Your task to perform on an android device: View the shopping cart on amazon.com. Add "usb-c to usb-a" to the cart on amazon.com, then select checkout. Image 0: 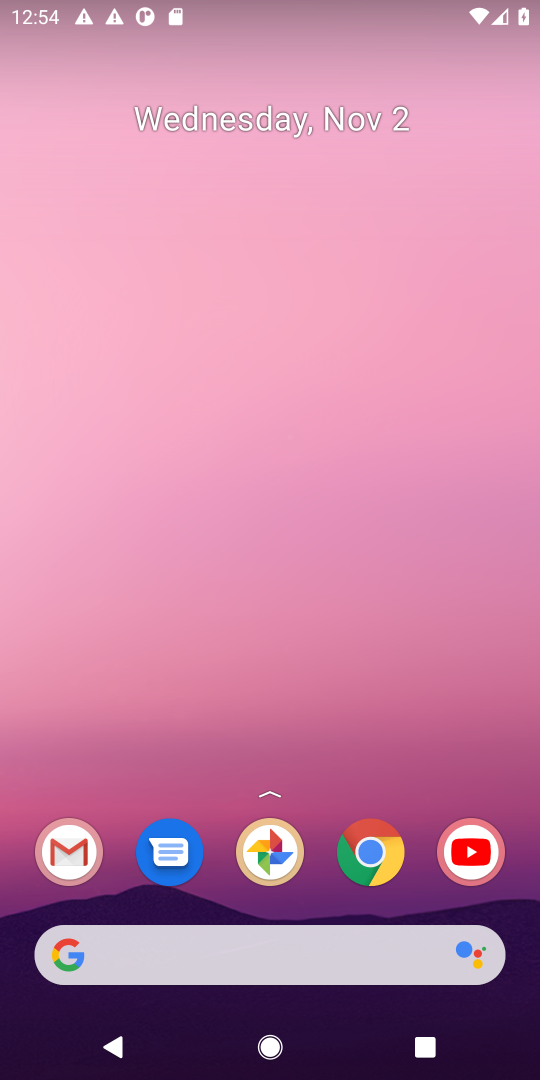
Step 0: click (73, 952)
Your task to perform on an android device: View the shopping cart on amazon.com. Add "usb-c to usb-a" to the cart on amazon.com, then select checkout. Image 1: 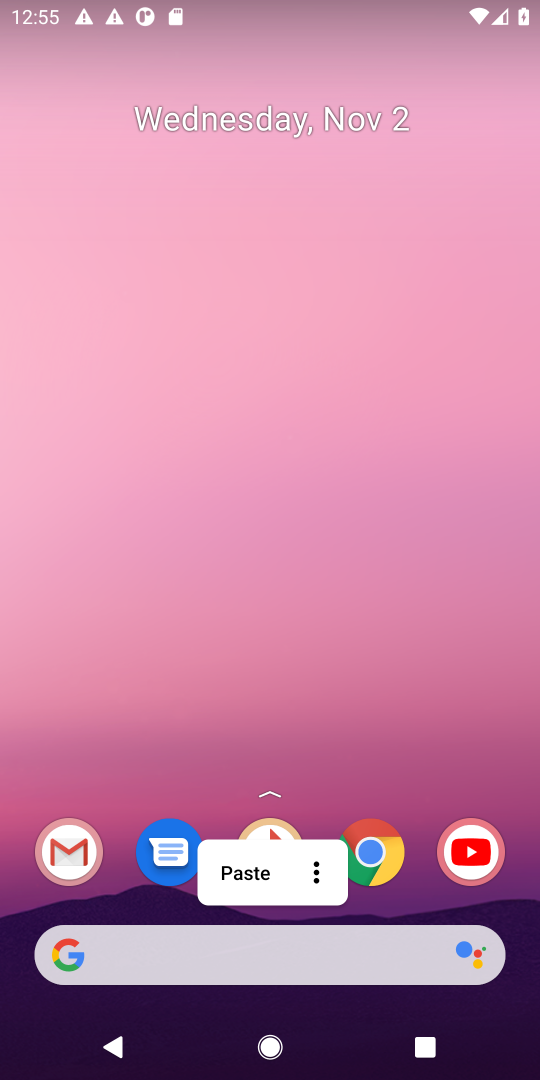
Step 1: click (78, 960)
Your task to perform on an android device: View the shopping cart on amazon.com. Add "usb-c to usb-a" to the cart on amazon.com, then select checkout. Image 2: 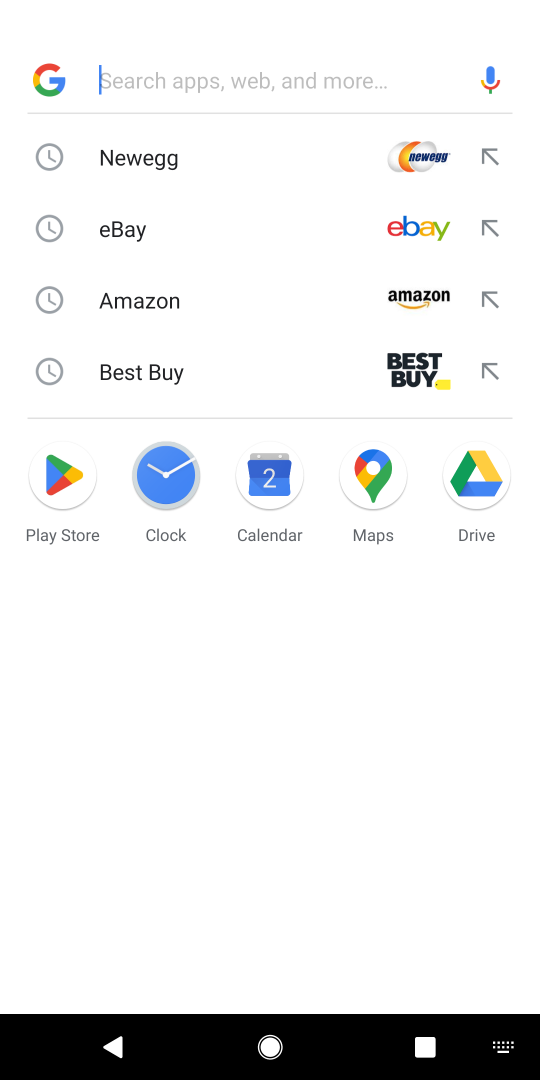
Step 2: click (413, 295)
Your task to perform on an android device: View the shopping cart on amazon.com. Add "usb-c to usb-a" to the cart on amazon.com, then select checkout. Image 3: 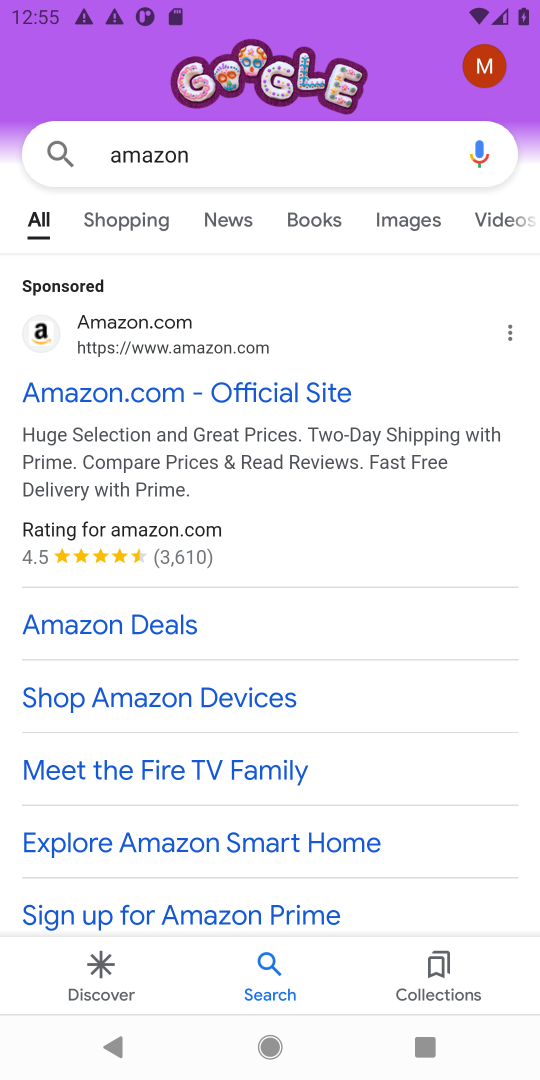
Step 3: drag from (418, 737) to (383, 300)
Your task to perform on an android device: View the shopping cart on amazon.com. Add "usb-c to usb-a" to the cart on amazon.com, then select checkout. Image 4: 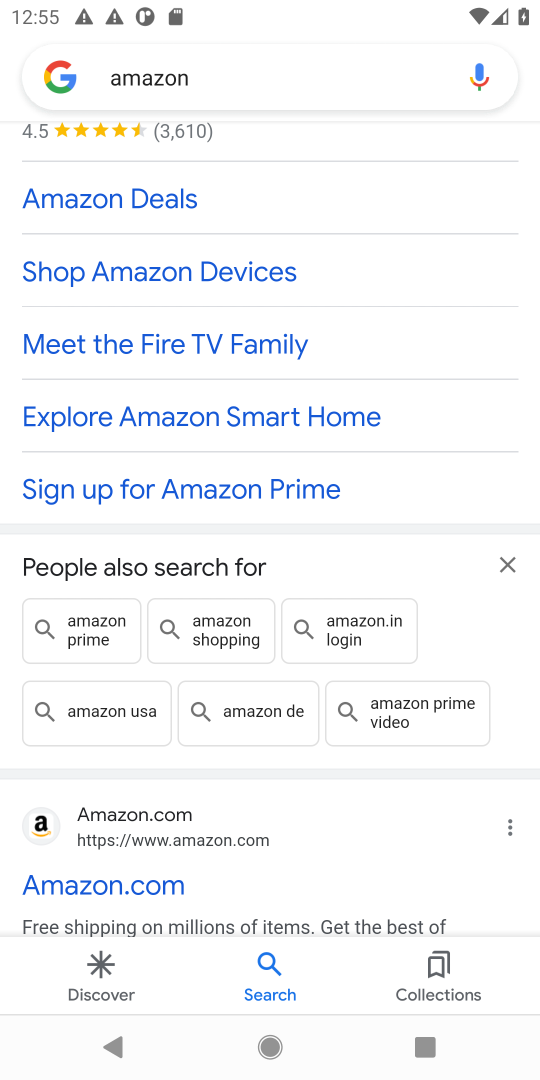
Step 4: click (108, 886)
Your task to perform on an android device: View the shopping cart on amazon.com. Add "usb-c to usb-a" to the cart on amazon.com, then select checkout. Image 5: 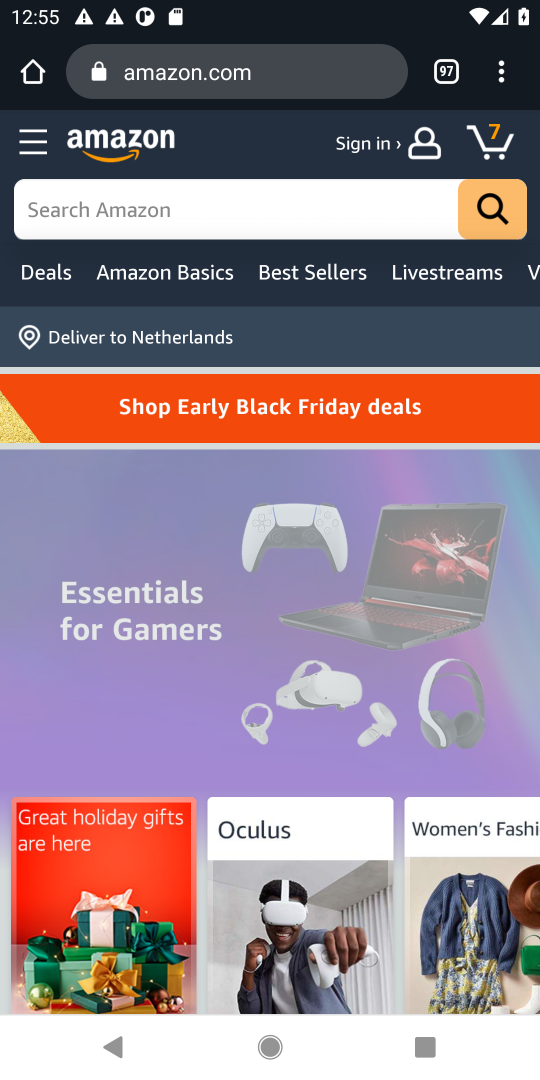
Step 5: click (85, 215)
Your task to perform on an android device: View the shopping cart on amazon.com. Add "usb-c to usb-a" to the cart on amazon.com, then select checkout. Image 6: 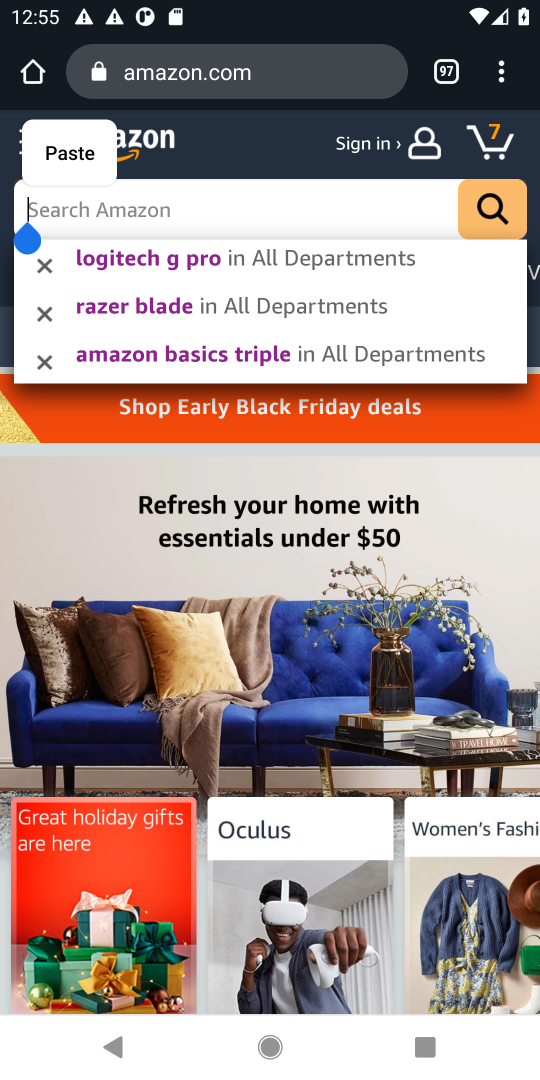
Step 6: type "usb-c to usb-a"
Your task to perform on an android device: View the shopping cart on amazon.com. Add "usb-c to usb-a" to the cart on amazon.com, then select checkout. Image 7: 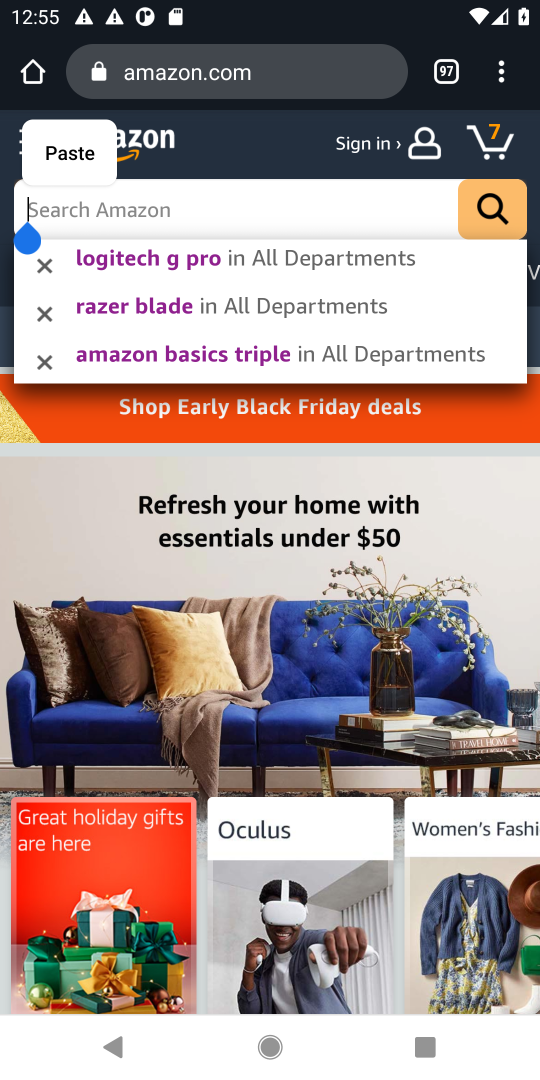
Step 7: click (119, 201)
Your task to perform on an android device: View the shopping cart on amazon.com. Add "usb-c to usb-a" to the cart on amazon.com, then select checkout. Image 8: 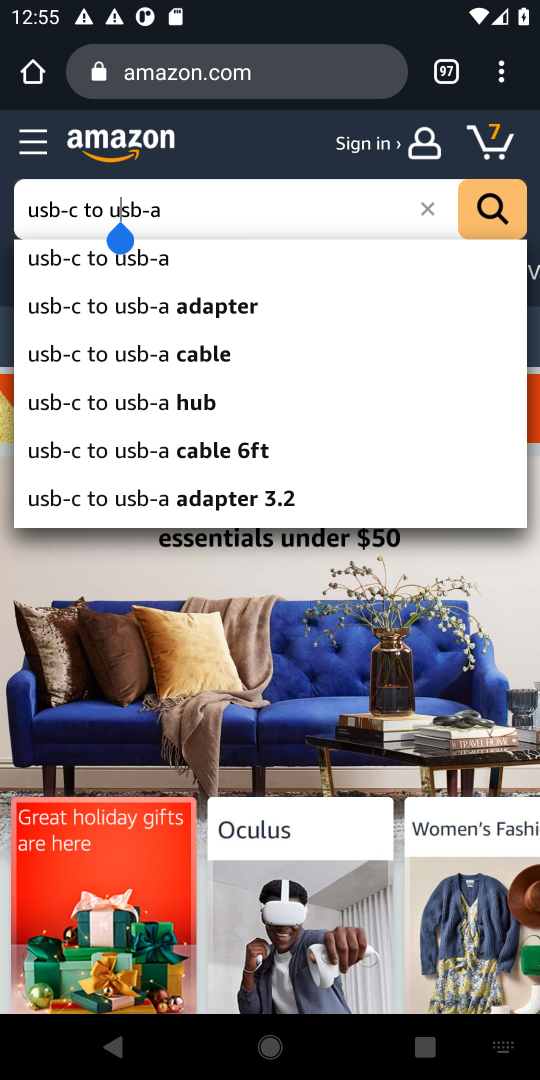
Step 8: press enter
Your task to perform on an android device: View the shopping cart on amazon.com. Add "usb-c to usb-a" to the cart on amazon.com, then select checkout. Image 9: 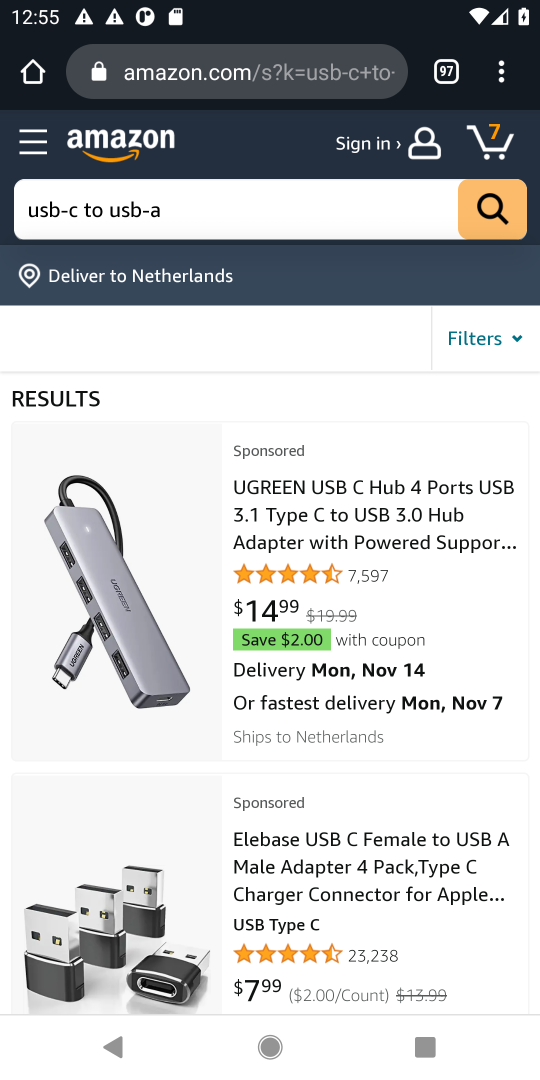
Step 9: click (441, 863)
Your task to perform on an android device: View the shopping cart on amazon.com. Add "usb-c to usb-a" to the cart on amazon.com, then select checkout. Image 10: 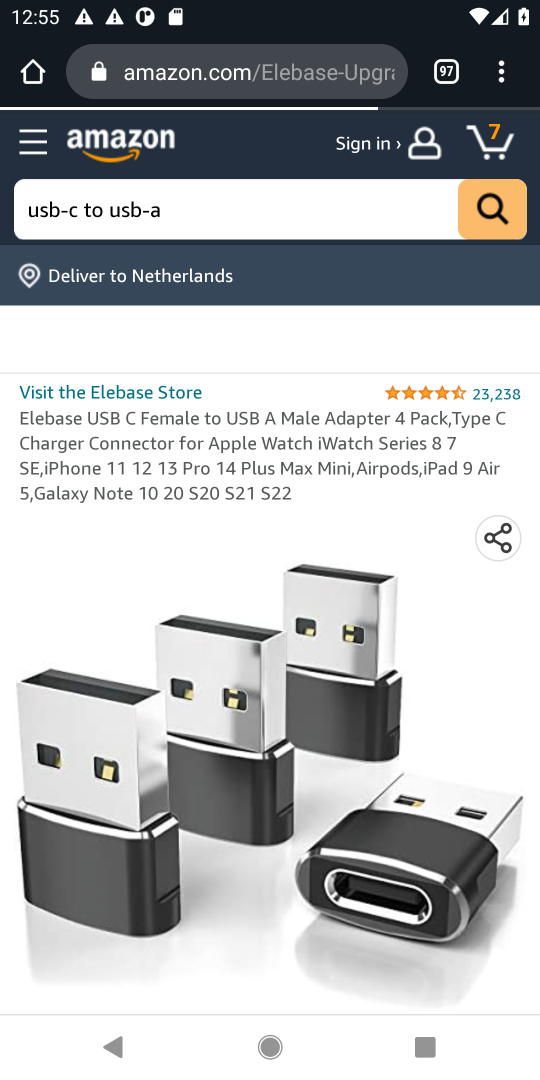
Step 10: drag from (264, 909) to (307, 223)
Your task to perform on an android device: View the shopping cart on amazon.com. Add "usb-c to usb-a" to the cart on amazon.com, then select checkout. Image 11: 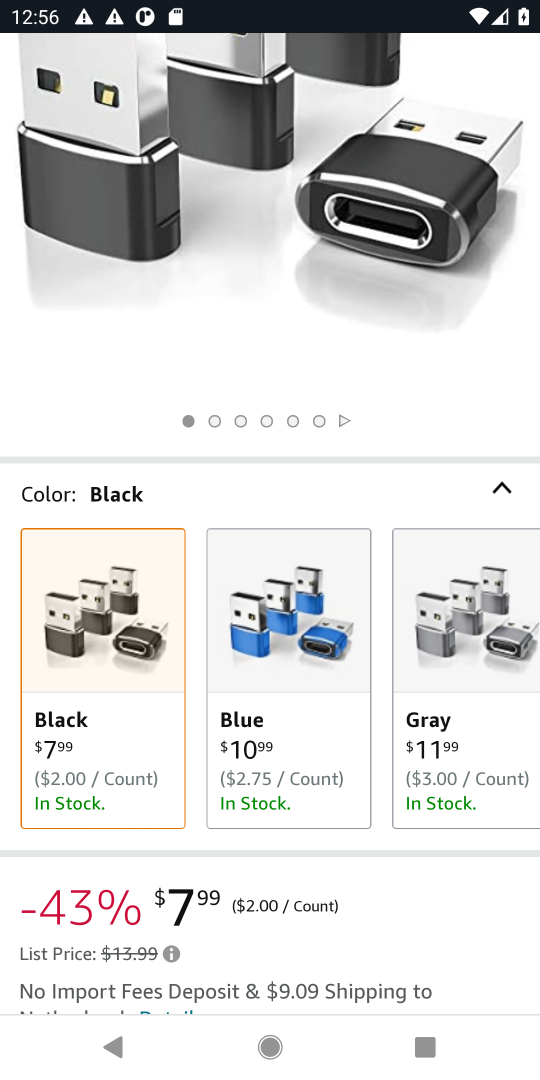
Step 11: drag from (279, 963) to (310, 311)
Your task to perform on an android device: View the shopping cart on amazon.com. Add "usb-c to usb-a" to the cart on amazon.com, then select checkout. Image 12: 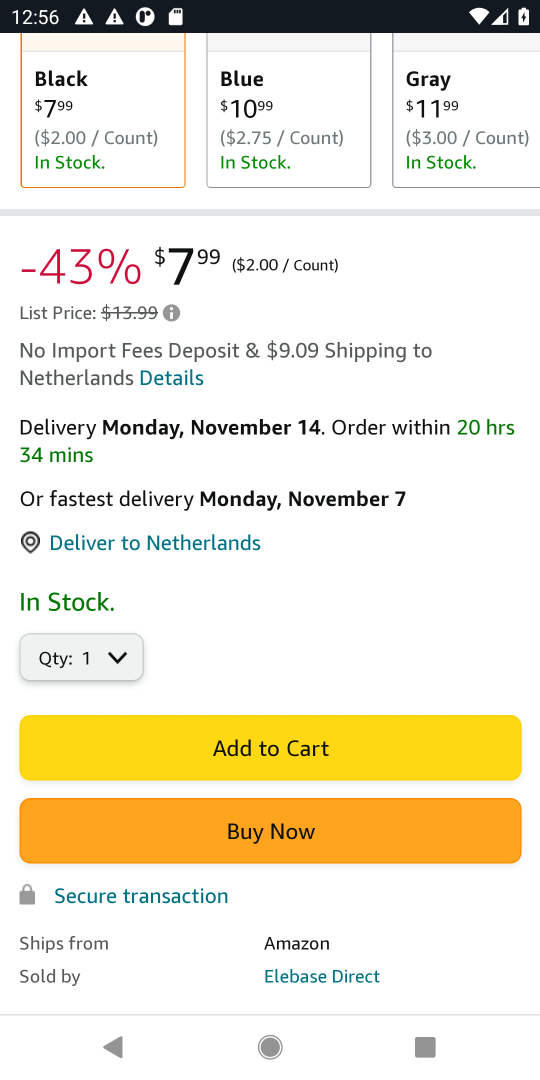
Step 12: click (247, 756)
Your task to perform on an android device: View the shopping cart on amazon.com. Add "usb-c to usb-a" to the cart on amazon.com, then select checkout. Image 13: 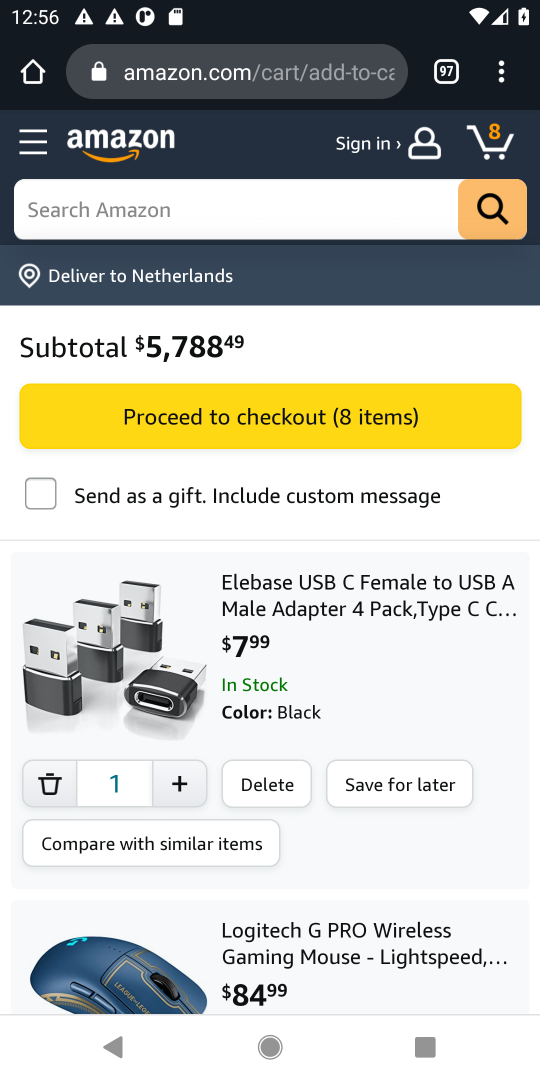
Step 13: click (489, 133)
Your task to perform on an android device: View the shopping cart on amazon.com. Add "usb-c to usb-a" to the cart on amazon.com, then select checkout. Image 14: 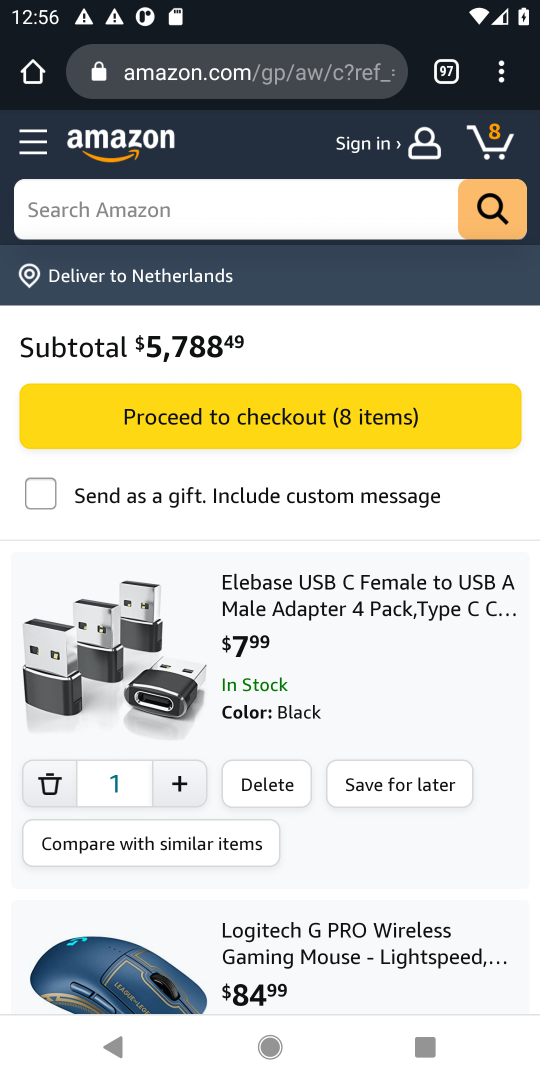
Step 14: click (491, 136)
Your task to perform on an android device: View the shopping cart on amazon.com. Add "usb-c to usb-a" to the cart on amazon.com, then select checkout. Image 15: 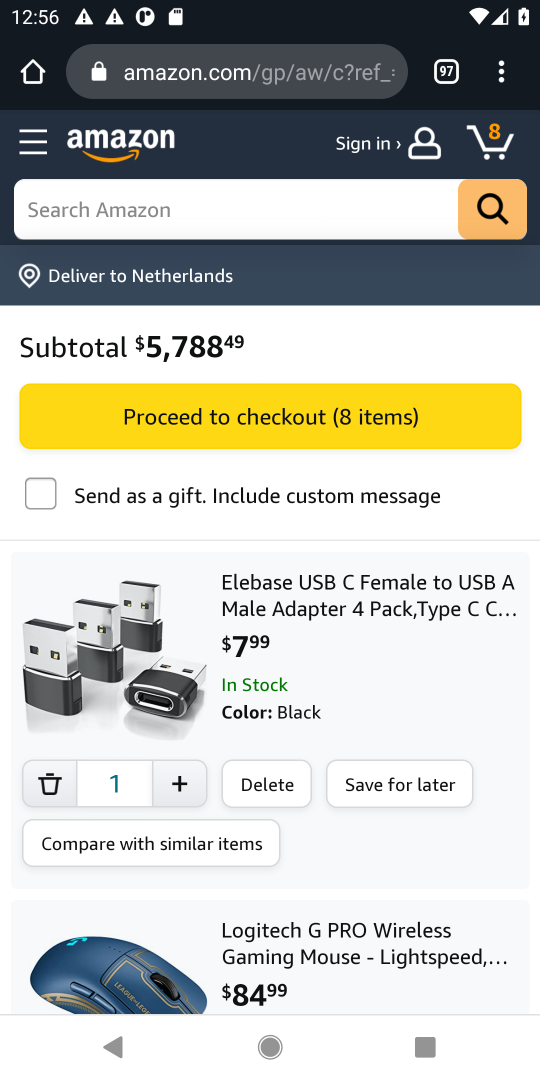
Step 15: click (209, 419)
Your task to perform on an android device: View the shopping cart on amazon.com. Add "usb-c to usb-a" to the cart on amazon.com, then select checkout. Image 16: 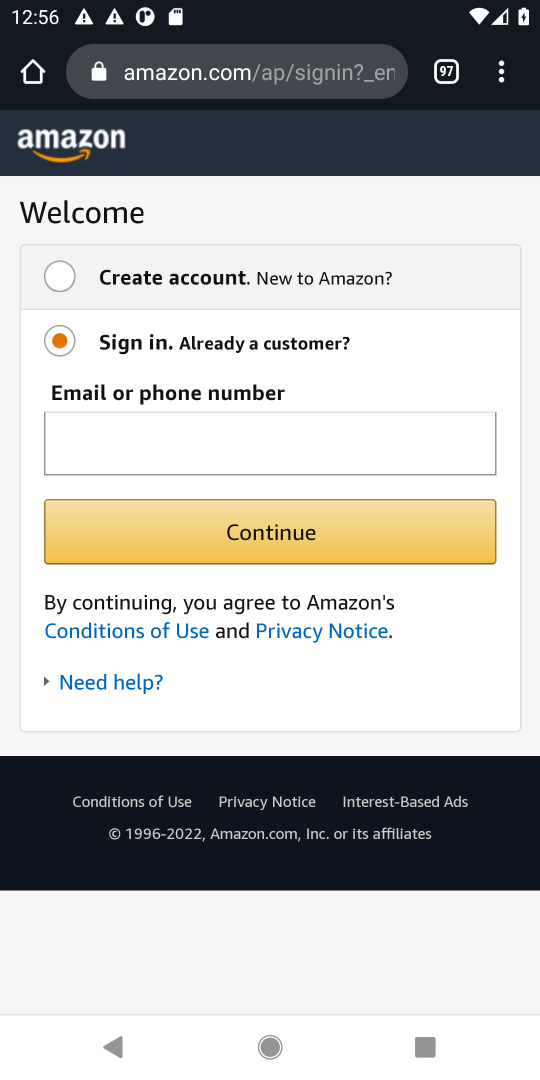
Step 16: task complete